Your task to perform on an android device: turn off notifications in google photos Image 0: 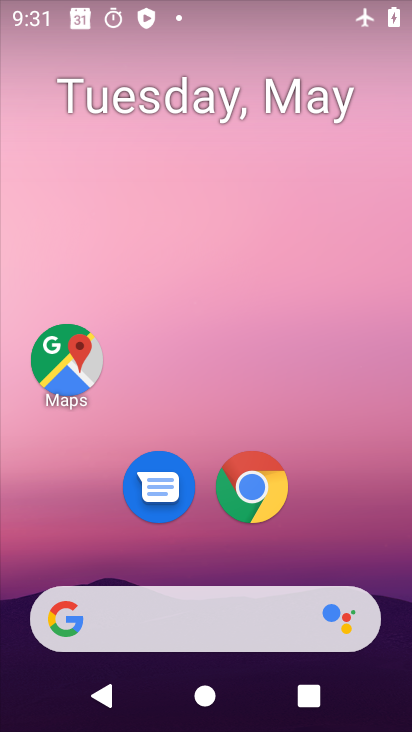
Step 0: click (276, 196)
Your task to perform on an android device: turn off notifications in google photos Image 1: 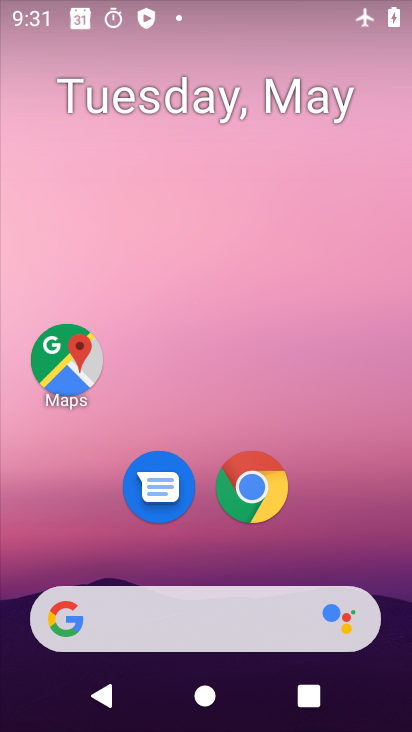
Step 1: drag from (237, 554) to (245, 264)
Your task to perform on an android device: turn off notifications in google photos Image 2: 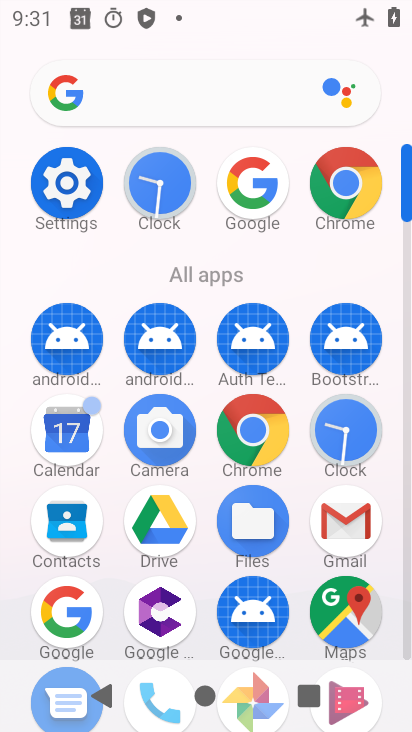
Step 2: drag from (223, 654) to (244, 259)
Your task to perform on an android device: turn off notifications in google photos Image 3: 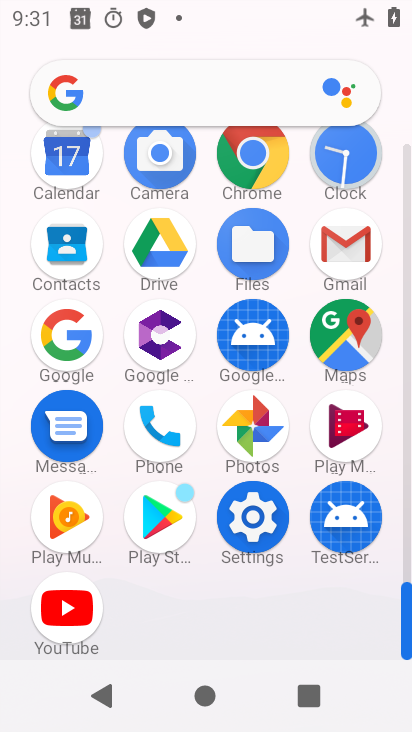
Step 3: click (246, 443)
Your task to perform on an android device: turn off notifications in google photos Image 4: 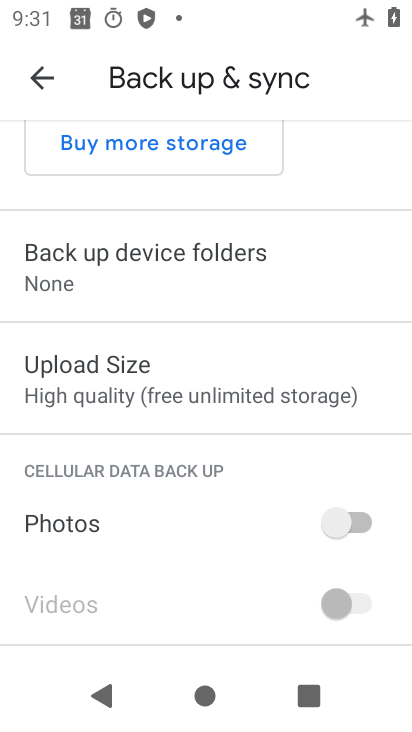
Step 4: drag from (243, 532) to (305, 152)
Your task to perform on an android device: turn off notifications in google photos Image 5: 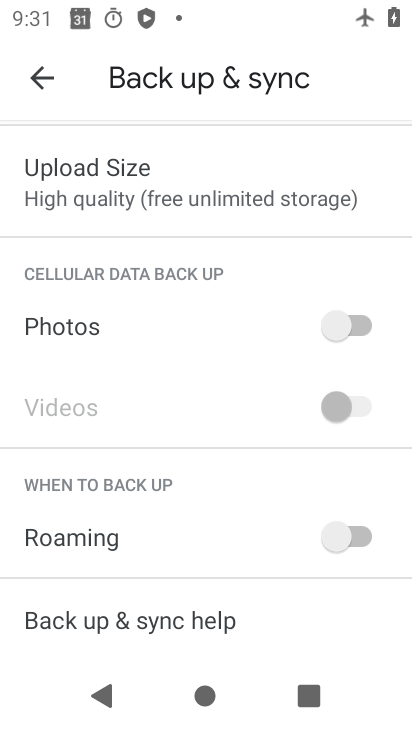
Step 5: drag from (186, 587) to (205, 273)
Your task to perform on an android device: turn off notifications in google photos Image 6: 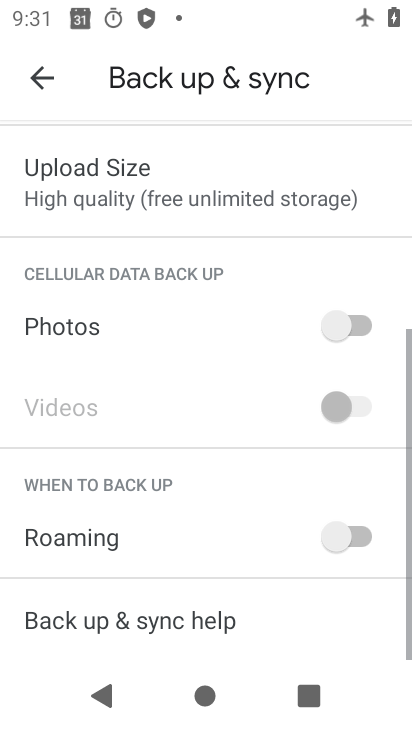
Step 6: drag from (224, 199) to (215, 714)
Your task to perform on an android device: turn off notifications in google photos Image 7: 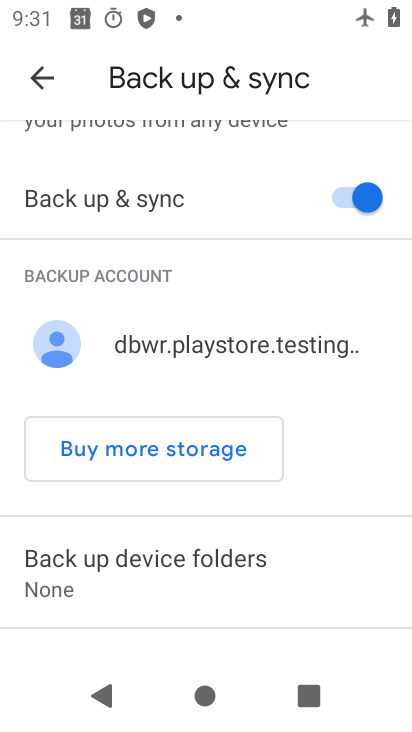
Step 7: drag from (173, 272) to (248, 626)
Your task to perform on an android device: turn off notifications in google photos Image 8: 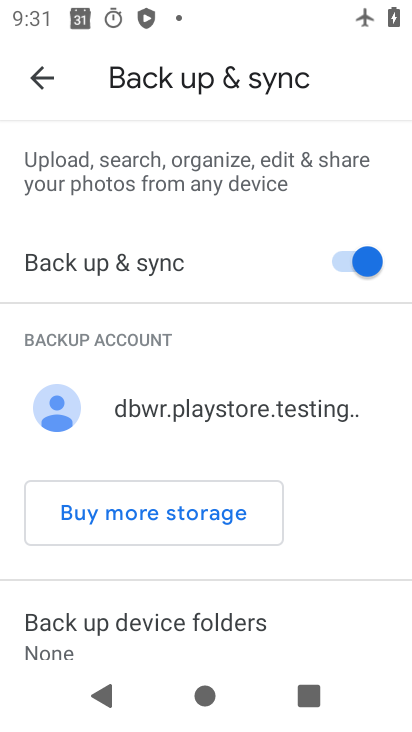
Step 8: click (42, 60)
Your task to perform on an android device: turn off notifications in google photos Image 9: 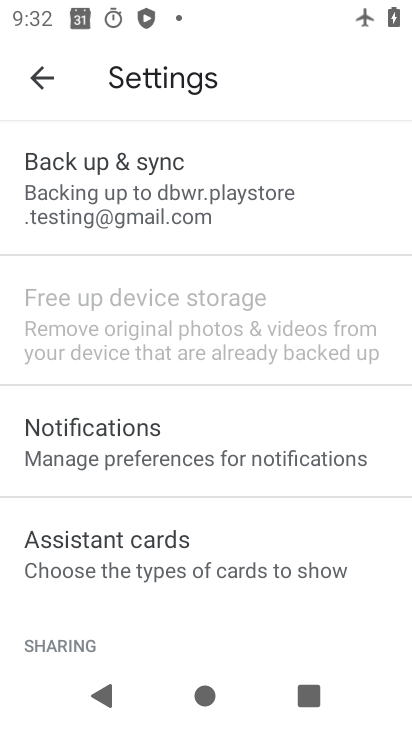
Step 9: click (152, 452)
Your task to perform on an android device: turn off notifications in google photos Image 10: 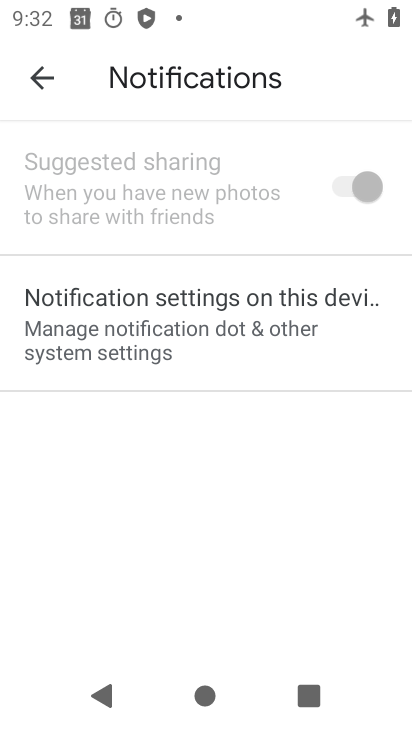
Step 10: click (170, 307)
Your task to perform on an android device: turn off notifications in google photos Image 11: 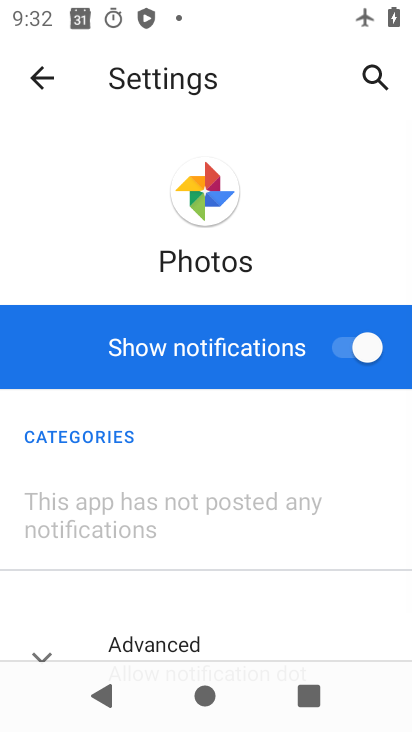
Step 11: click (359, 343)
Your task to perform on an android device: turn off notifications in google photos Image 12: 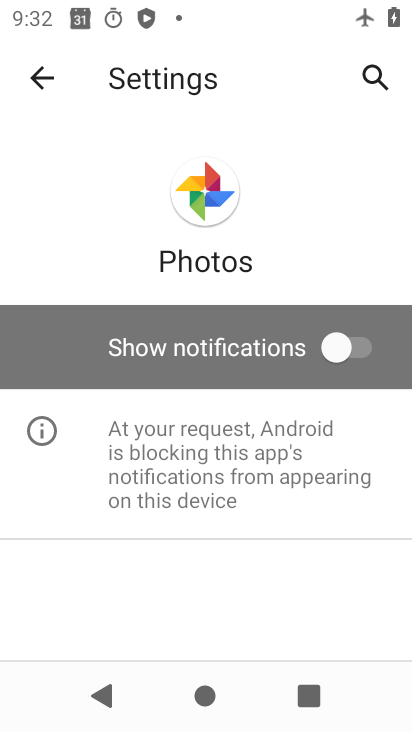
Step 12: task complete